Your task to perform on an android device: Clear the cart on target. Search for razer kraken on target, select the first entry, and add it to the cart. Image 0: 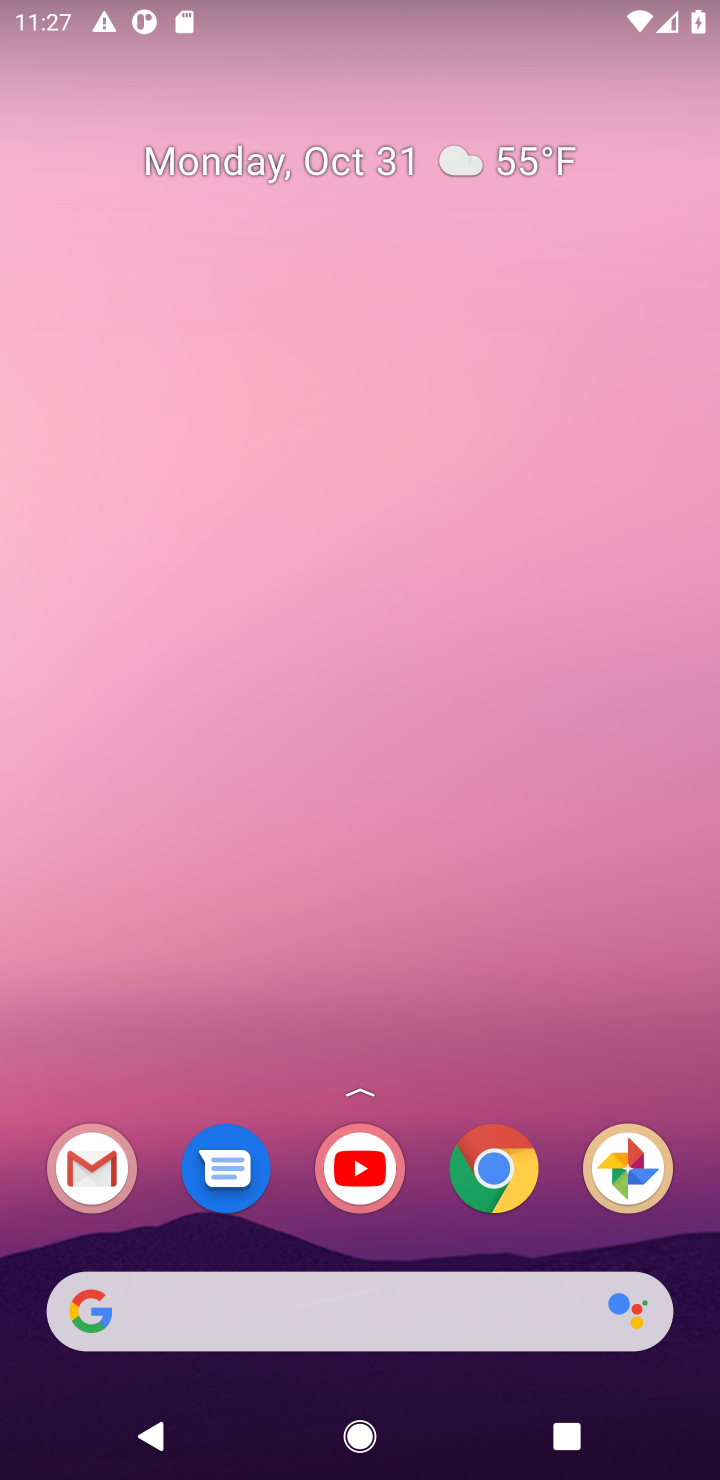
Step 0: click (508, 1193)
Your task to perform on an android device: Clear the cart on target. Search for razer kraken on target, select the first entry, and add it to the cart. Image 1: 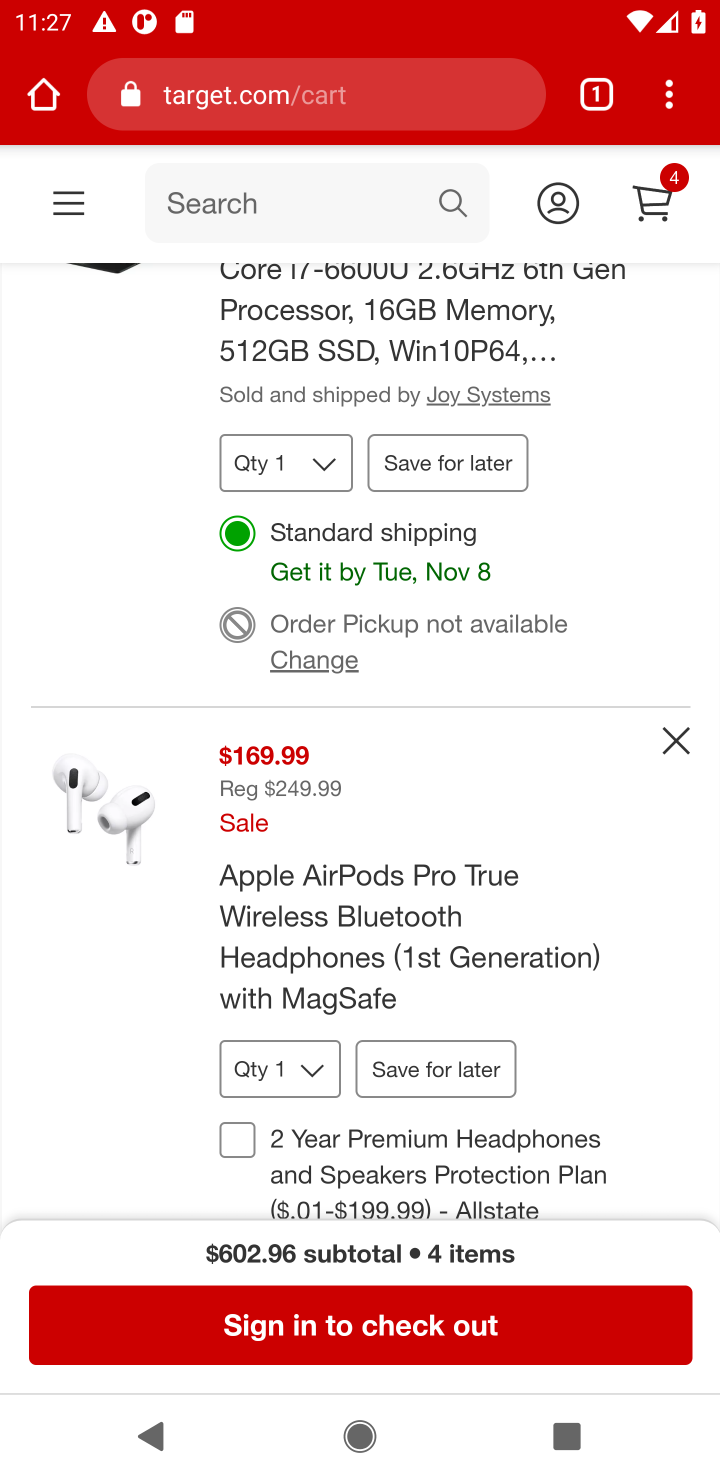
Step 1: click (672, 740)
Your task to perform on an android device: Clear the cart on target. Search for razer kraken on target, select the first entry, and add it to the cart. Image 2: 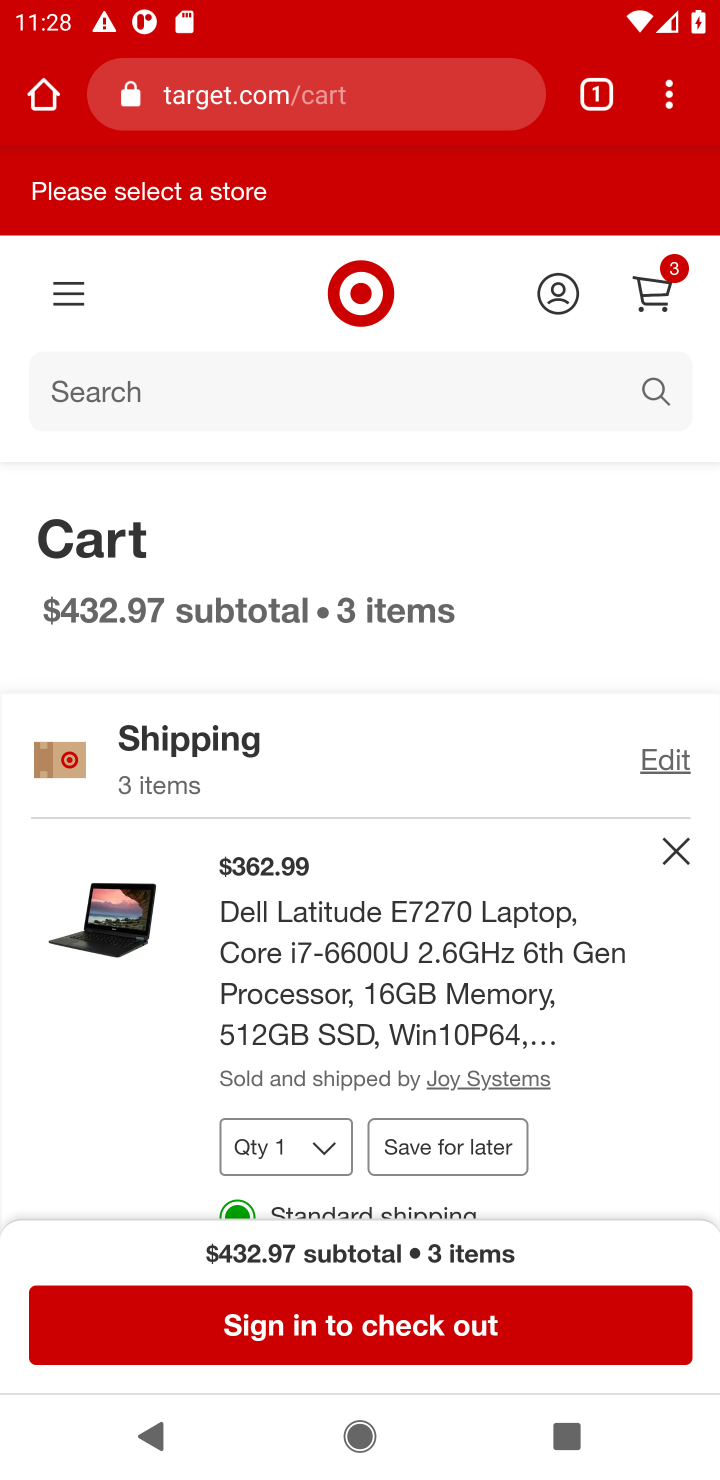
Step 2: click (678, 845)
Your task to perform on an android device: Clear the cart on target. Search for razer kraken on target, select the first entry, and add it to the cart. Image 3: 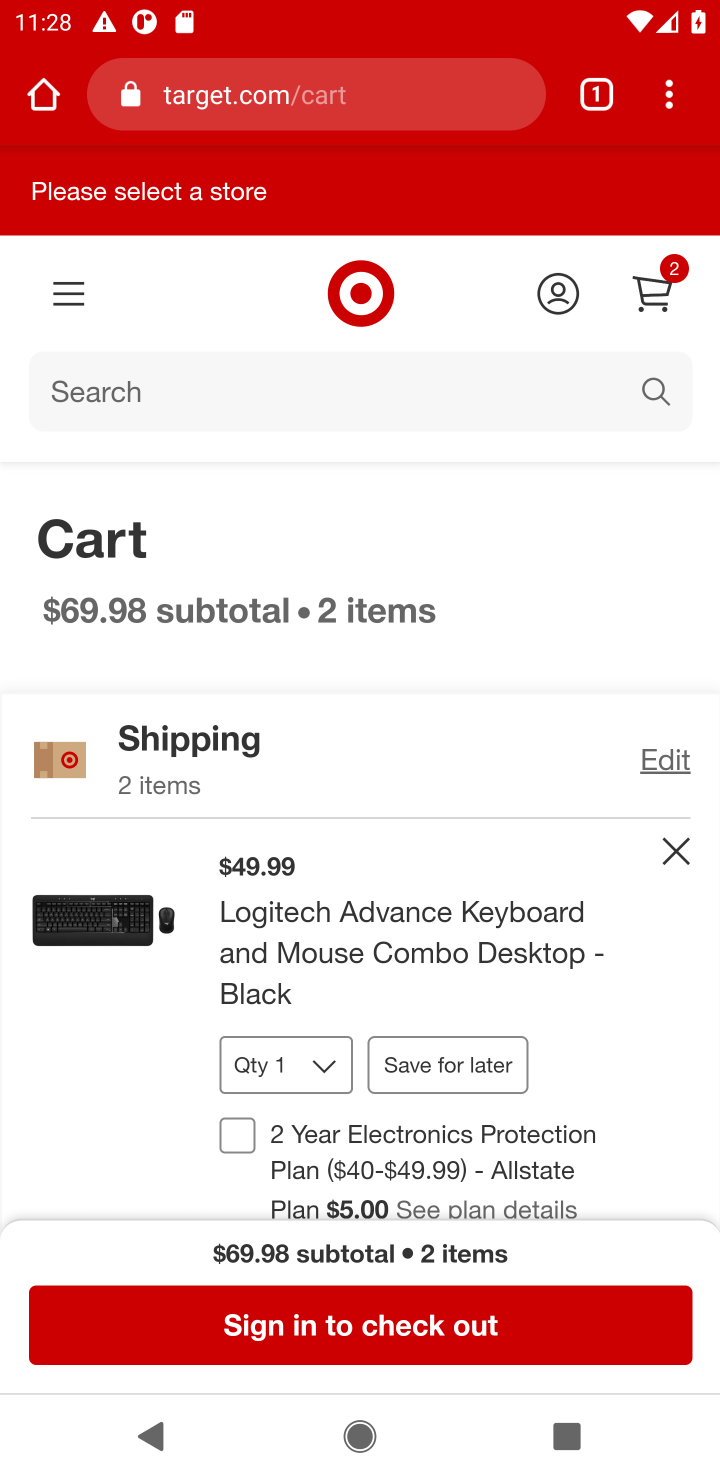
Step 3: click (673, 857)
Your task to perform on an android device: Clear the cart on target. Search for razer kraken on target, select the first entry, and add it to the cart. Image 4: 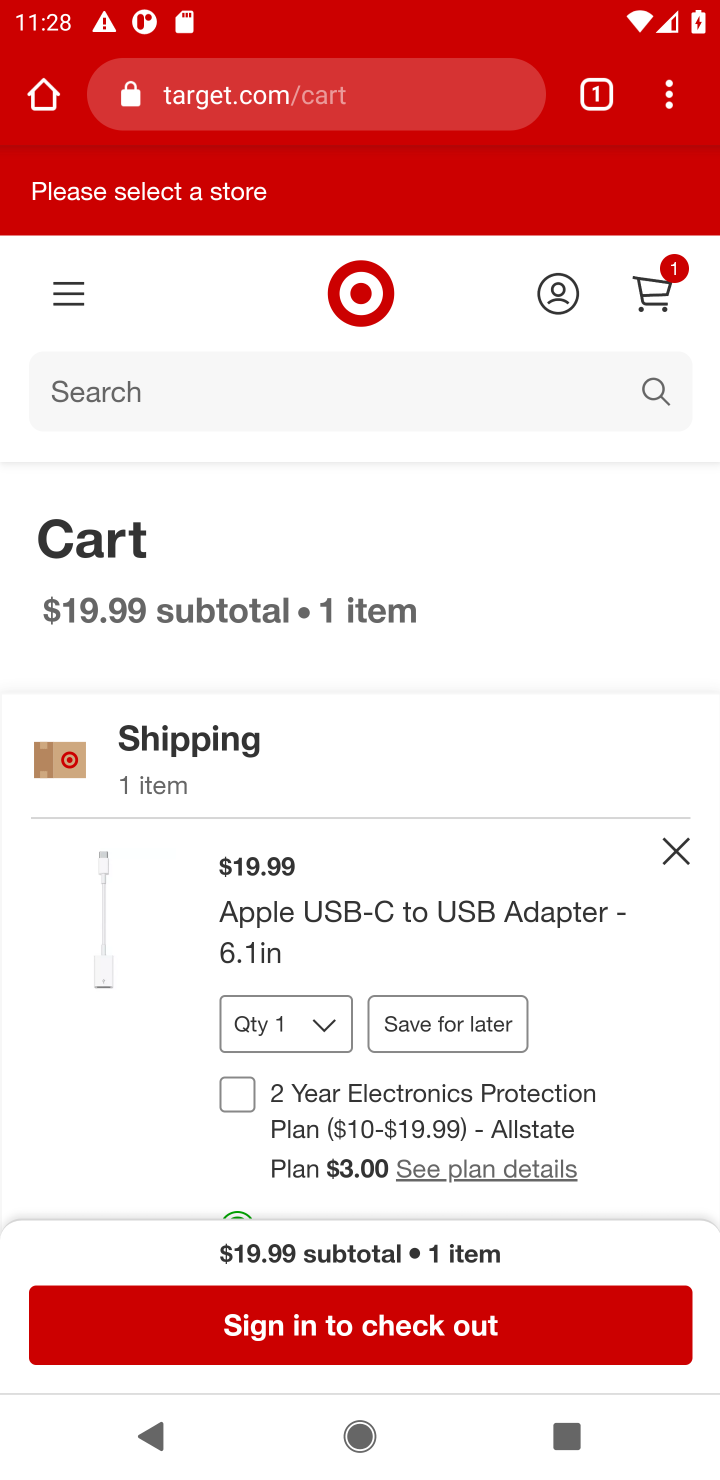
Step 4: click (672, 847)
Your task to perform on an android device: Clear the cart on target. Search for razer kraken on target, select the first entry, and add it to the cart. Image 5: 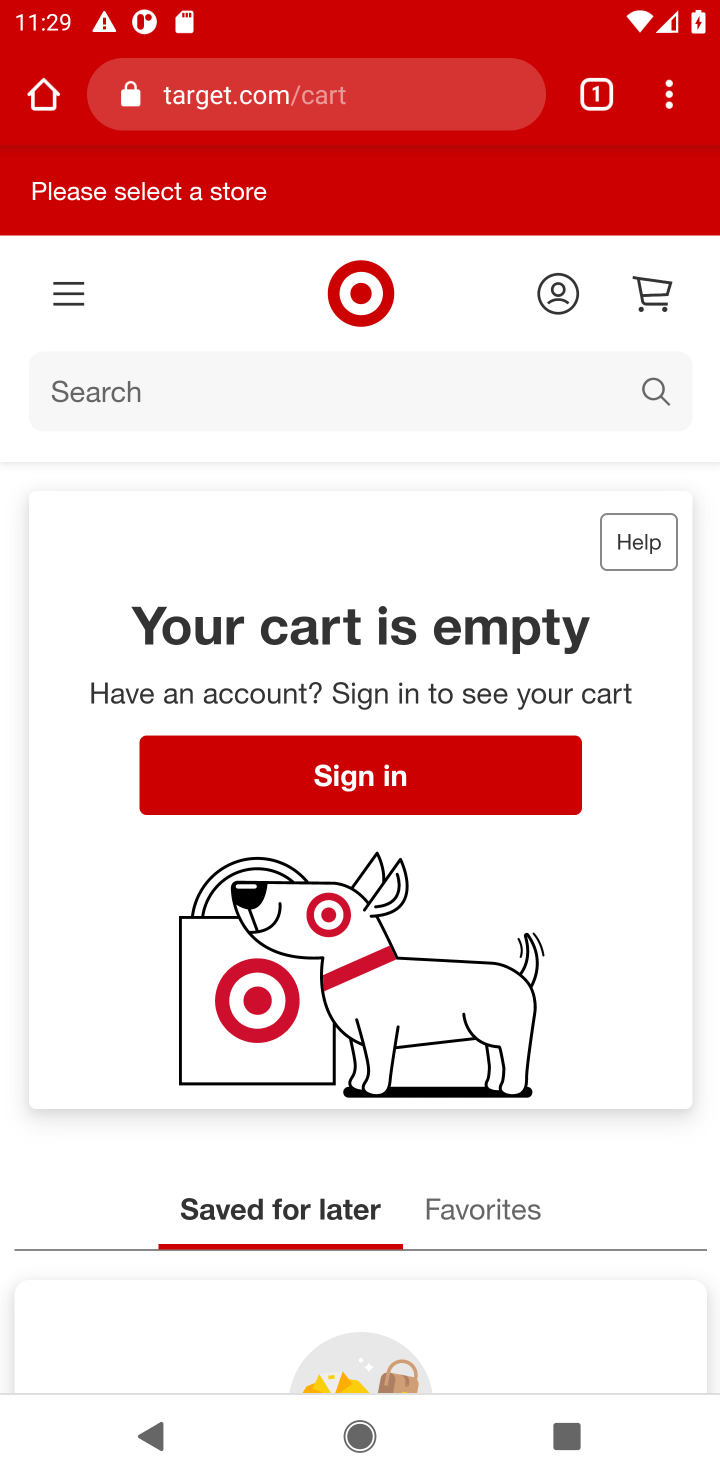
Step 5: click (514, 400)
Your task to perform on an android device: Clear the cart on target. Search for razer kraken on target, select the first entry, and add it to the cart. Image 6: 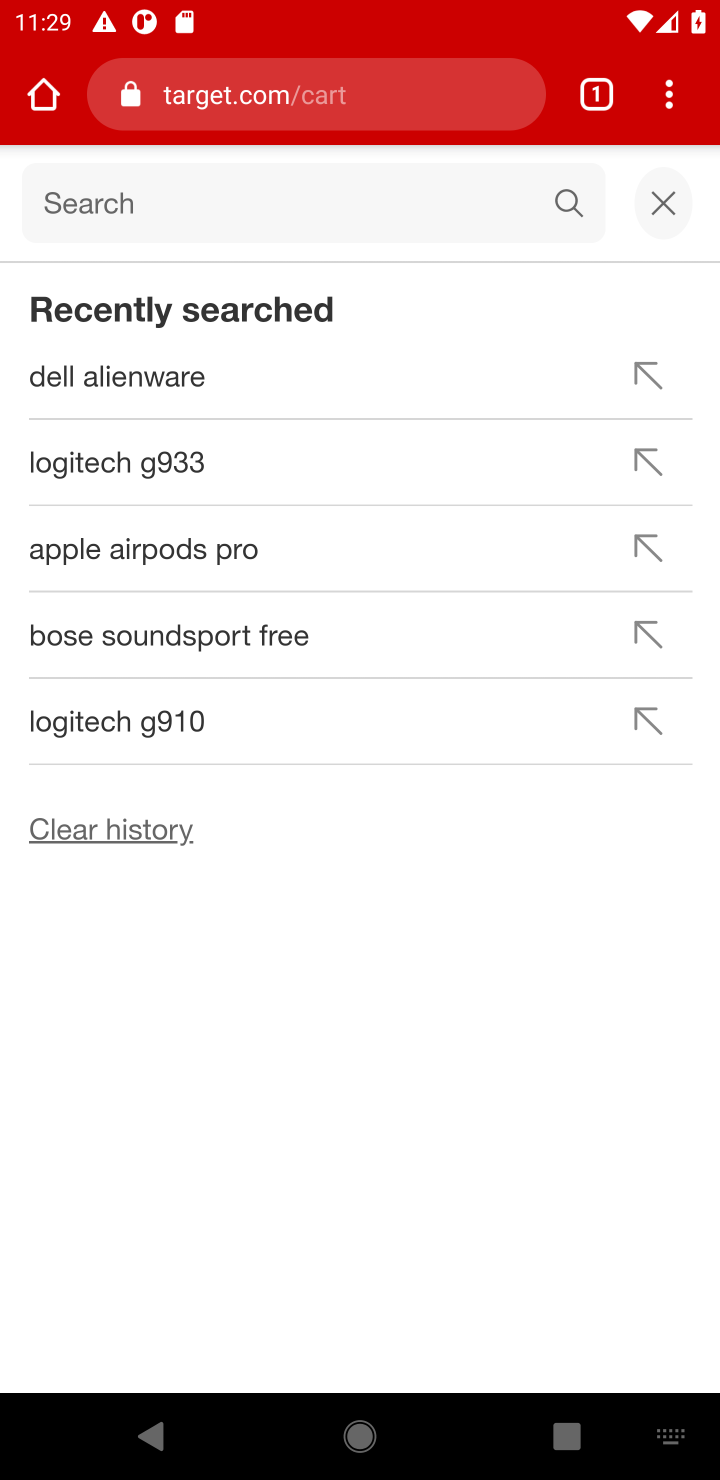
Step 6: type "razer kraken"
Your task to perform on an android device: Clear the cart on target. Search for razer kraken on target, select the first entry, and add it to the cart. Image 7: 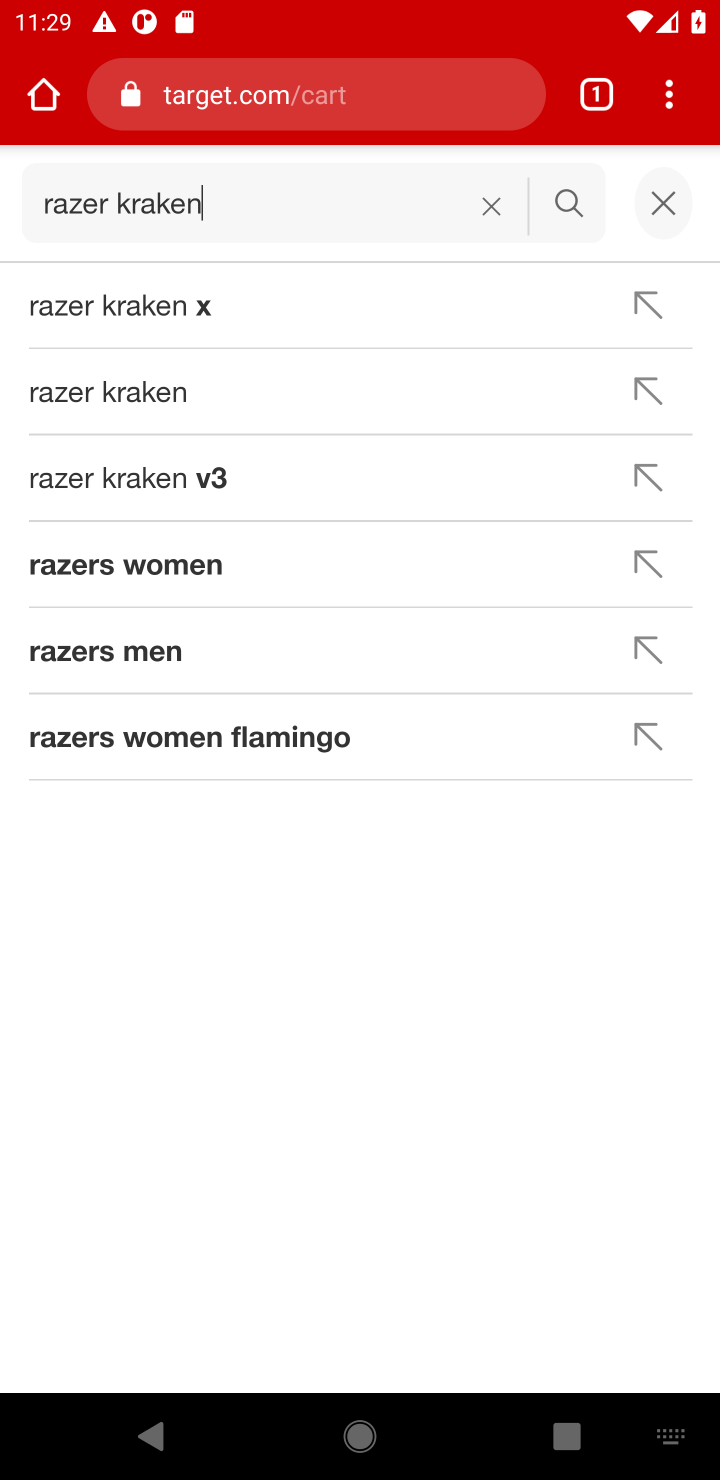
Step 7: press enter
Your task to perform on an android device: Clear the cart on target. Search for razer kraken on target, select the first entry, and add it to the cart. Image 8: 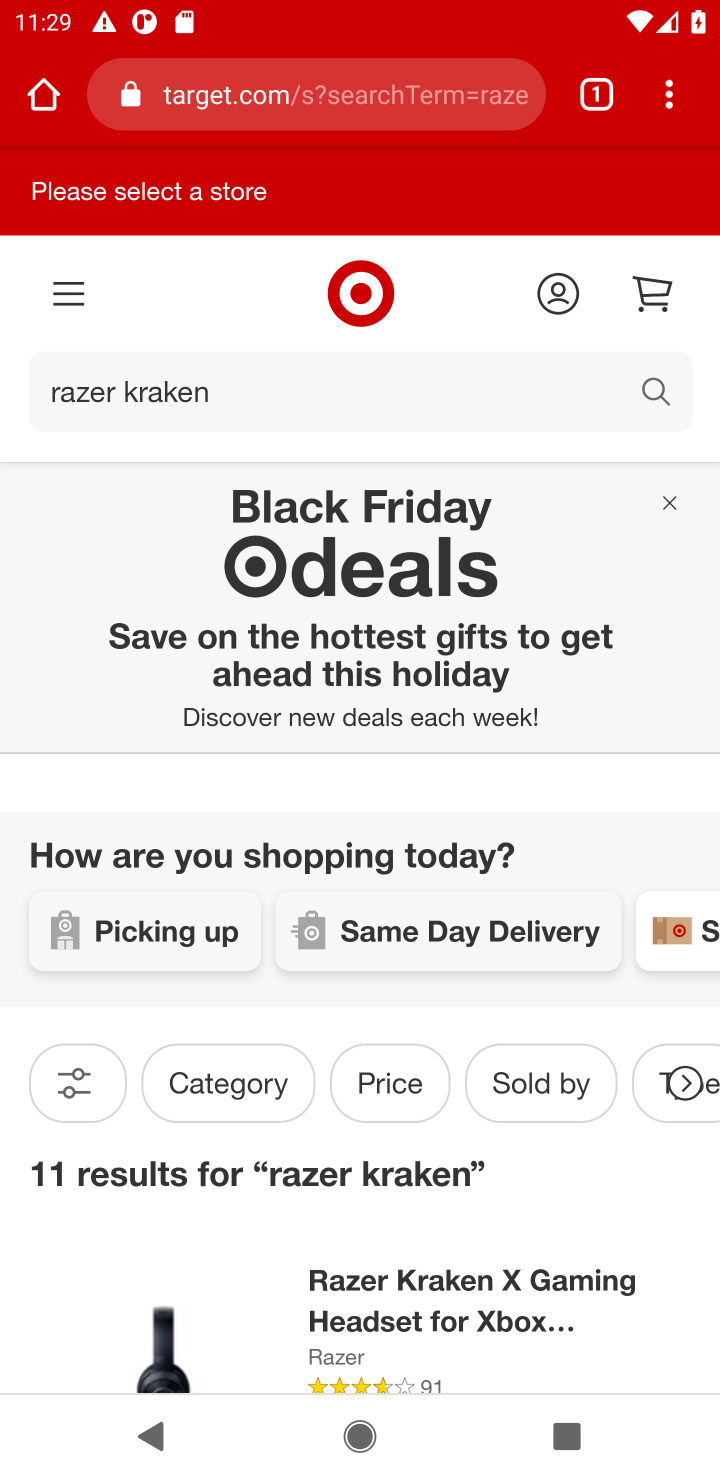
Step 8: click (508, 1290)
Your task to perform on an android device: Clear the cart on target. Search for razer kraken on target, select the first entry, and add it to the cart. Image 9: 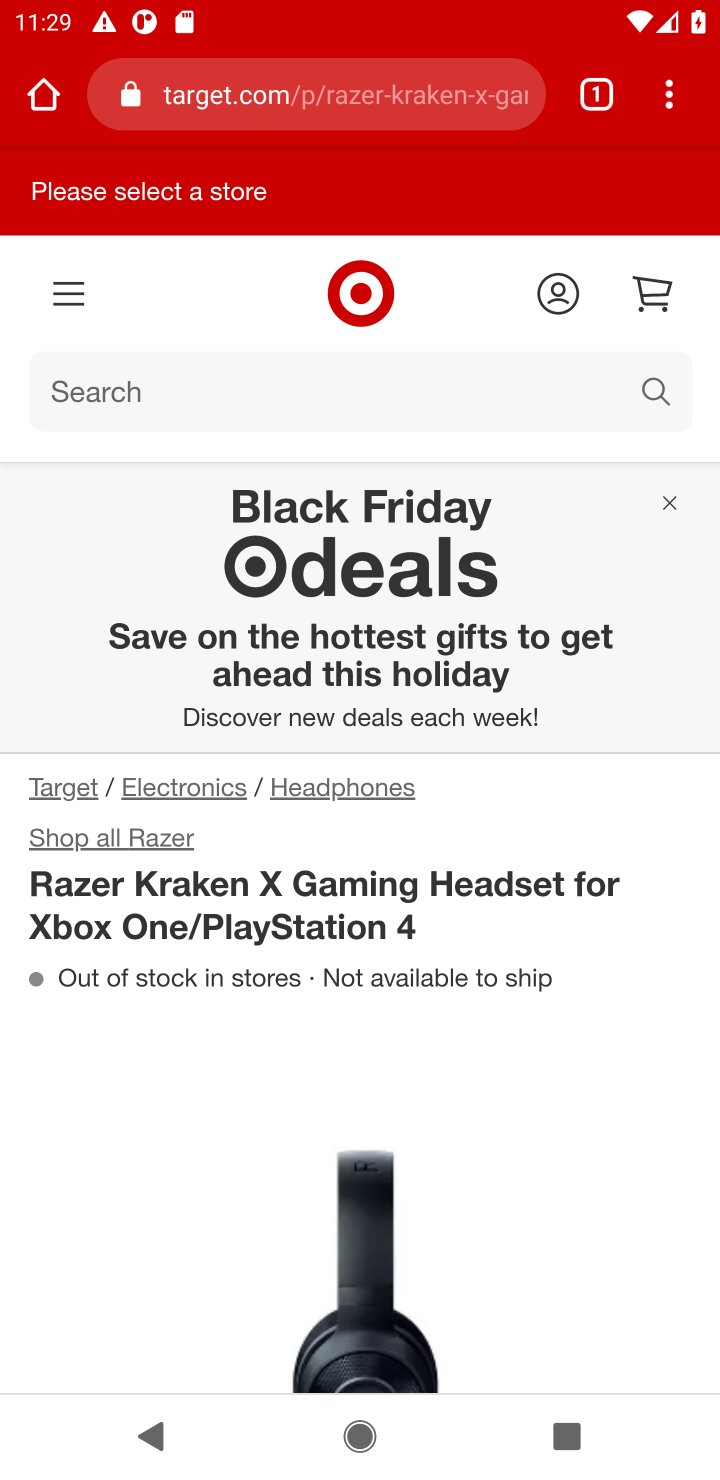
Step 9: drag from (578, 1239) to (528, 848)
Your task to perform on an android device: Clear the cart on target. Search for razer kraken on target, select the first entry, and add it to the cart. Image 10: 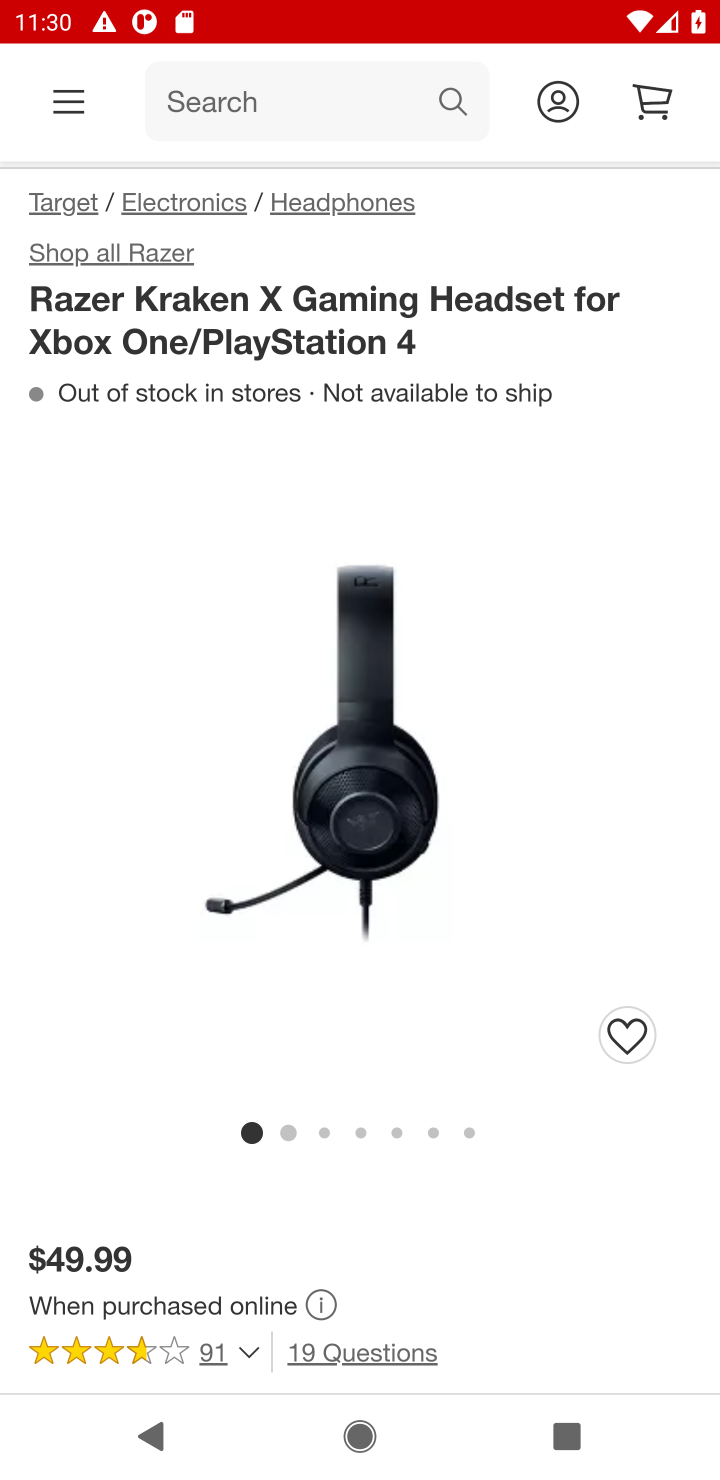
Step 10: drag from (605, 1278) to (575, 814)
Your task to perform on an android device: Clear the cart on target. Search for razer kraken on target, select the first entry, and add it to the cart. Image 11: 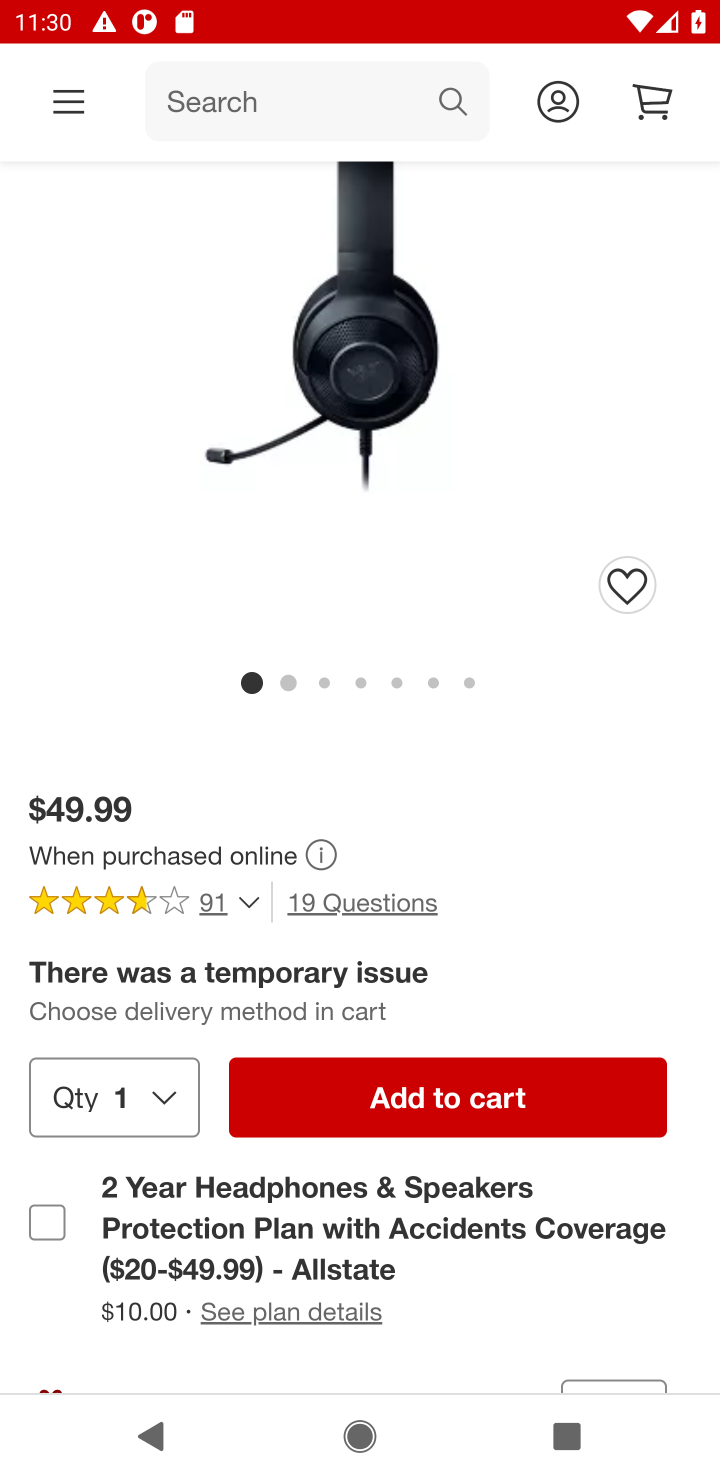
Step 11: click (491, 1100)
Your task to perform on an android device: Clear the cart on target. Search for razer kraken on target, select the first entry, and add it to the cart. Image 12: 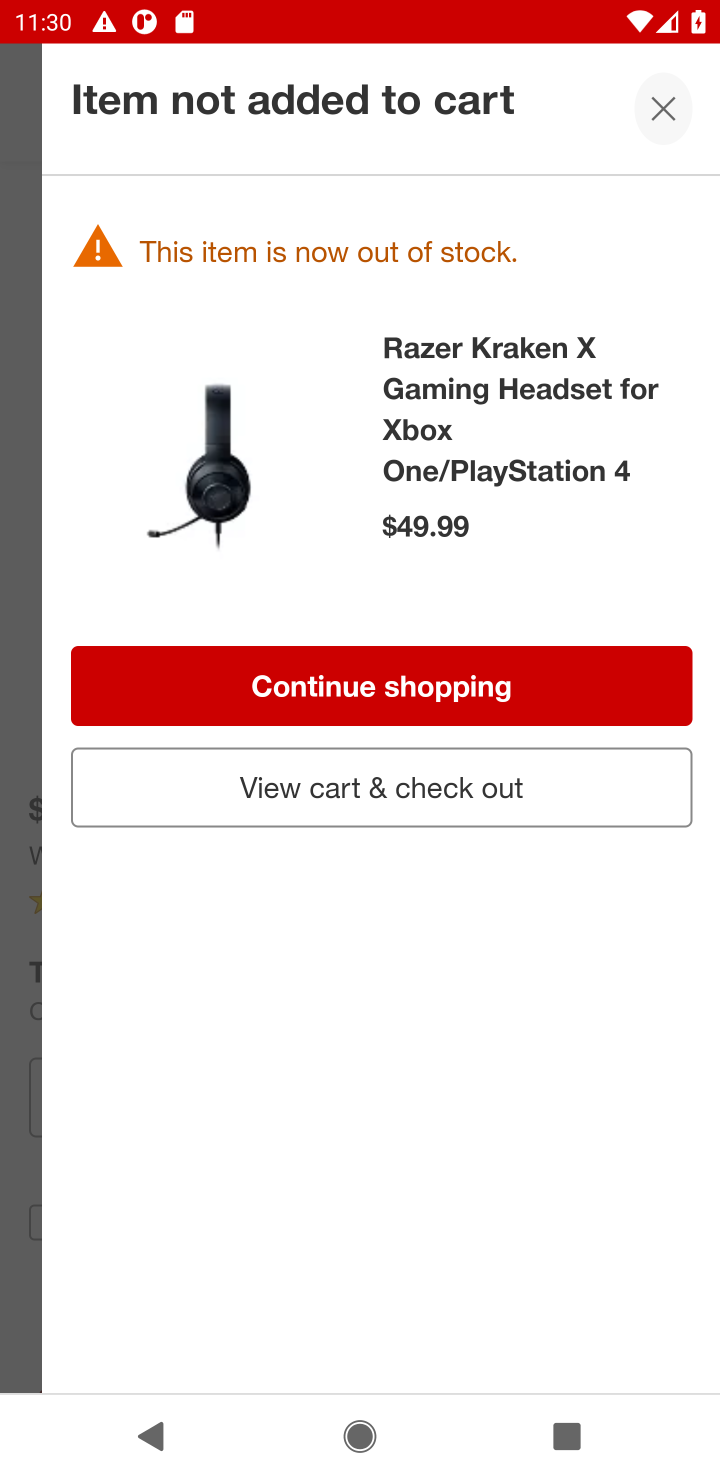
Step 12: task complete